Your task to perform on an android device: empty trash in google photos Image 0: 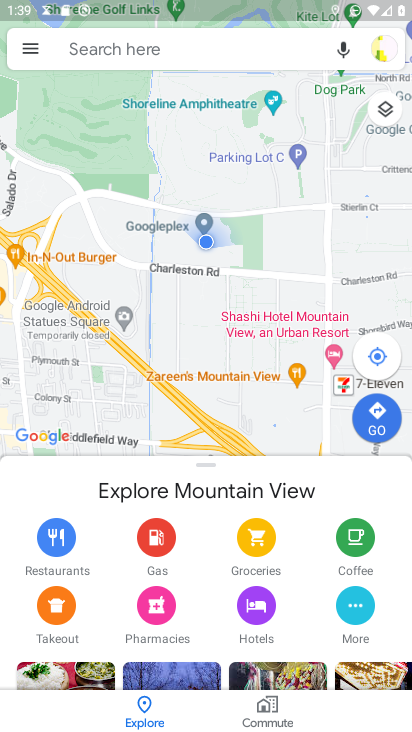
Step 0: press home button
Your task to perform on an android device: empty trash in google photos Image 1: 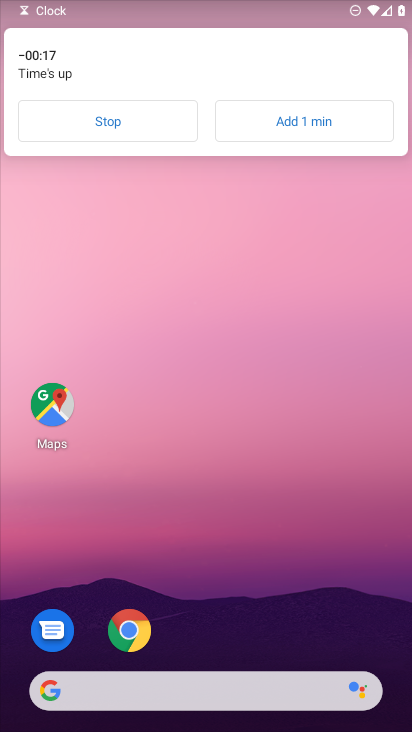
Step 1: click (107, 124)
Your task to perform on an android device: empty trash in google photos Image 2: 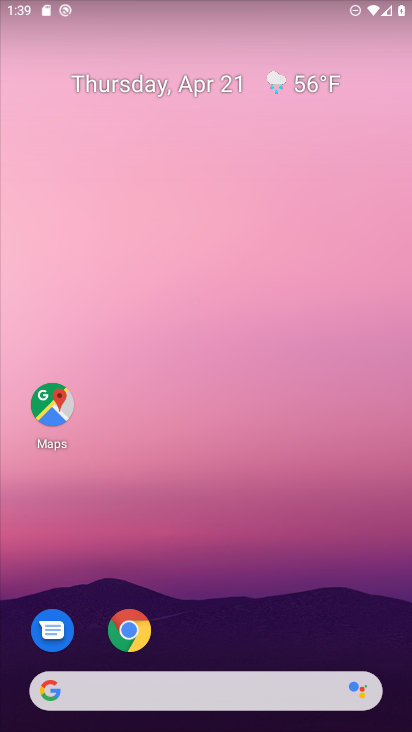
Step 2: drag from (253, 692) to (241, 107)
Your task to perform on an android device: empty trash in google photos Image 3: 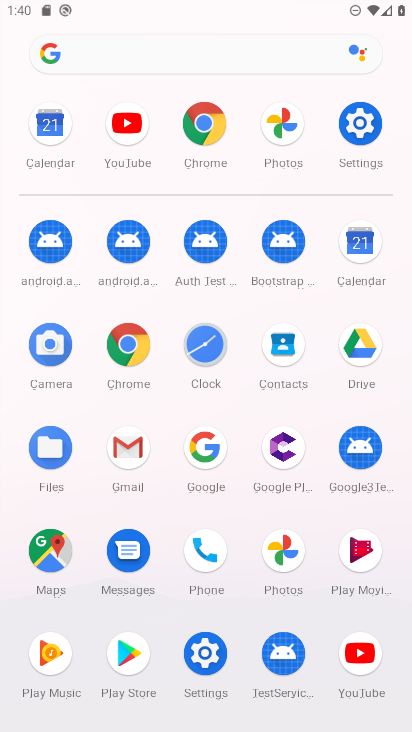
Step 3: click (278, 562)
Your task to perform on an android device: empty trash in google photos Image 4: 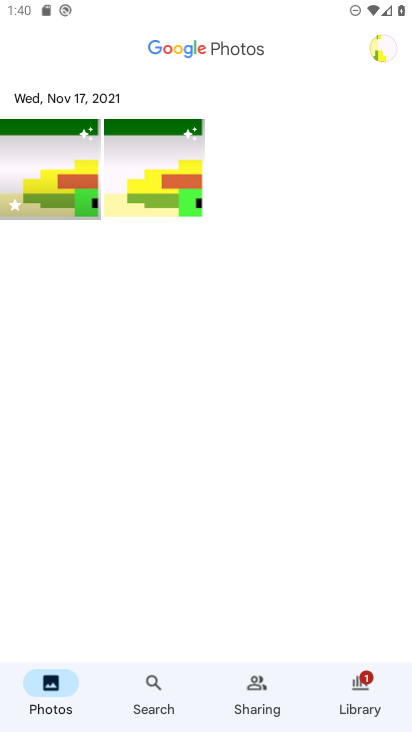
Step 4: click (375, 704)
Your task to perform on an android device: empty trash in google photos Image 5: 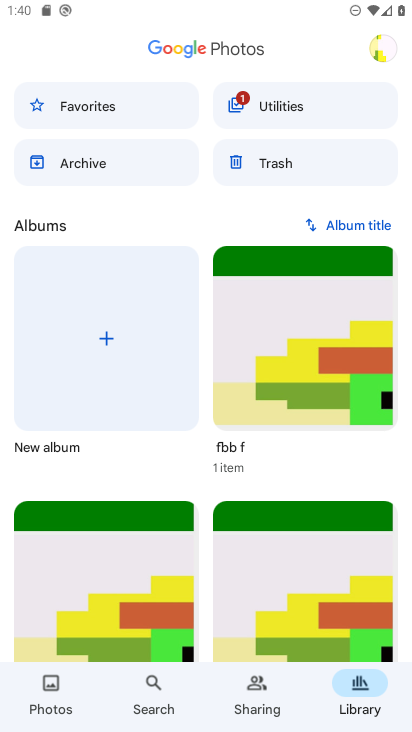
Step 5: click (256, 174)
Your task to perform on an android device: empty trash in google photos Image 6: 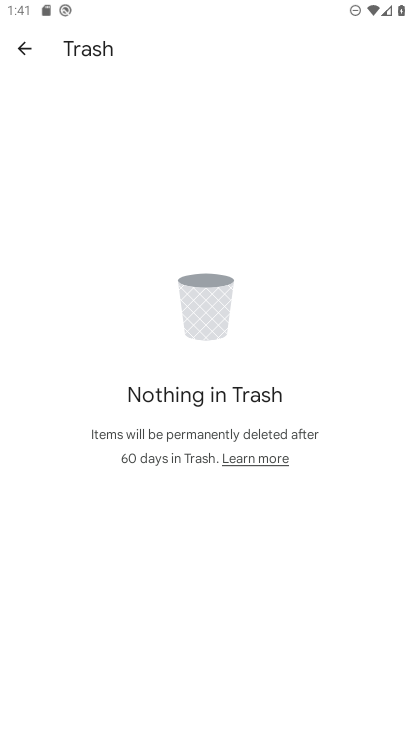
Step 6: task complete